Your task to perform on an android device: Clear the cart on amazon. Add "dell xps" to the cart on amazon Image 0: 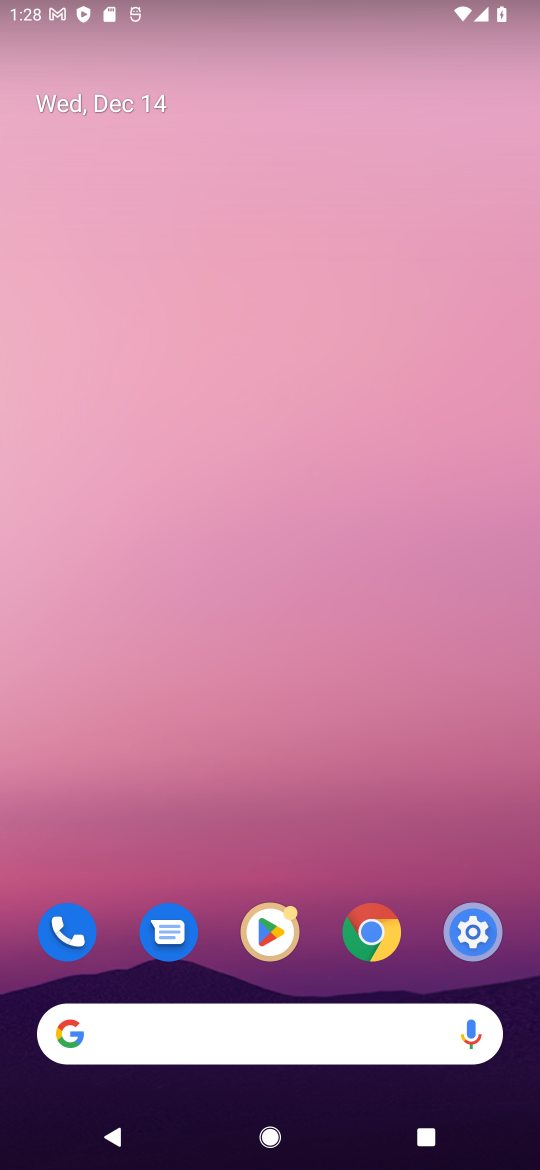
Step 0: click (184, 1020)
Your task to perform on an android device: Clear the cart on amazon. Add "dell xps" to the cart on amazon Image 1: 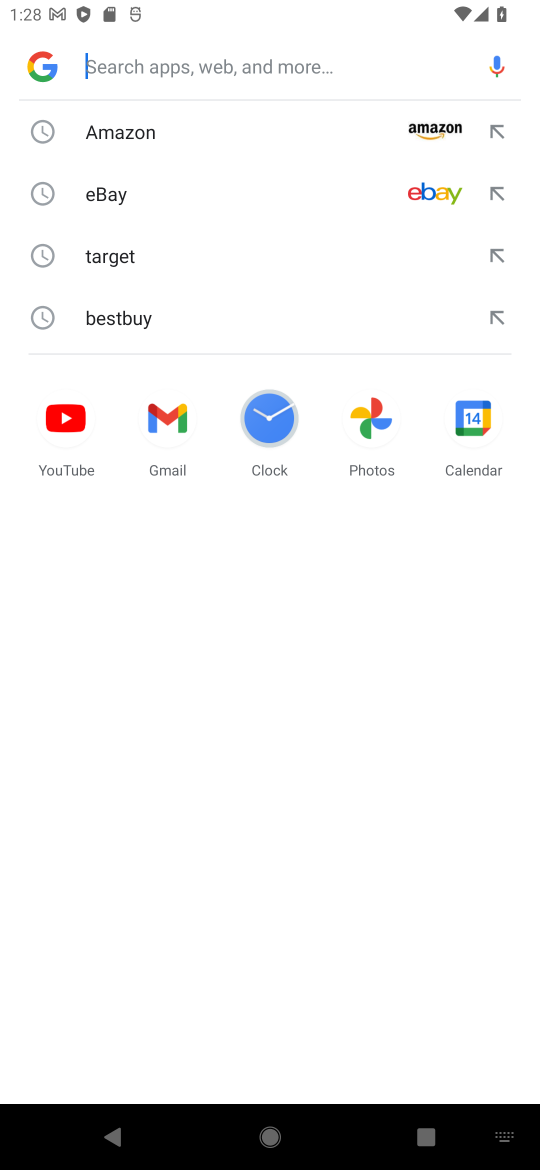
Step 1: click (153, 124)
Your task to perform on an android device: Clear the cart on amazon. Add "dell xps" to the cart on amazon Image 2: 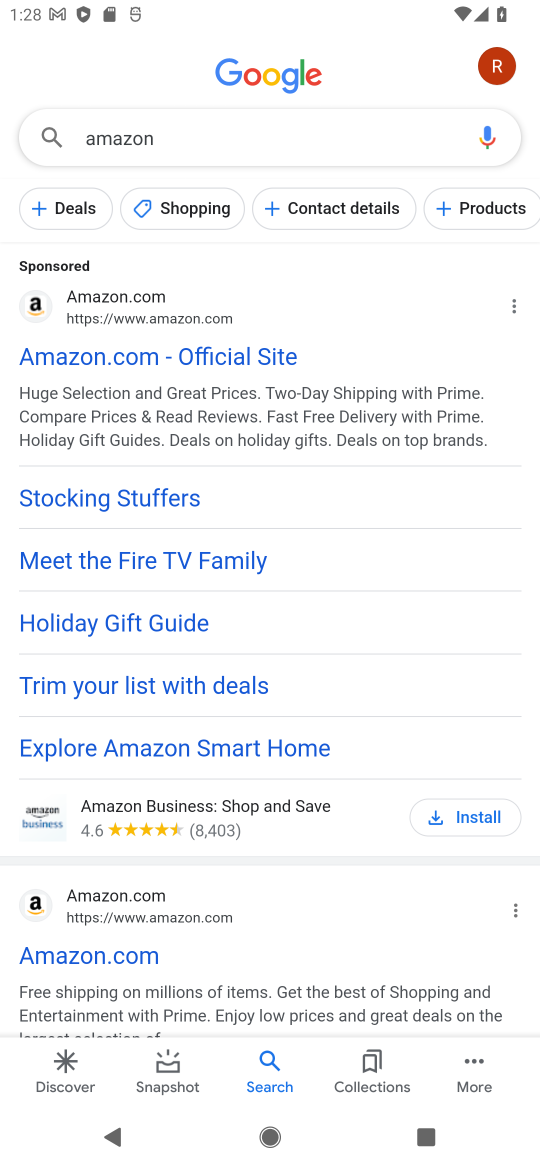
Step 2: click (173, 355)
Your task to perform on an android device: Clear the cart on amazon. Add "dell xps" to the cart on amazon Image 3: 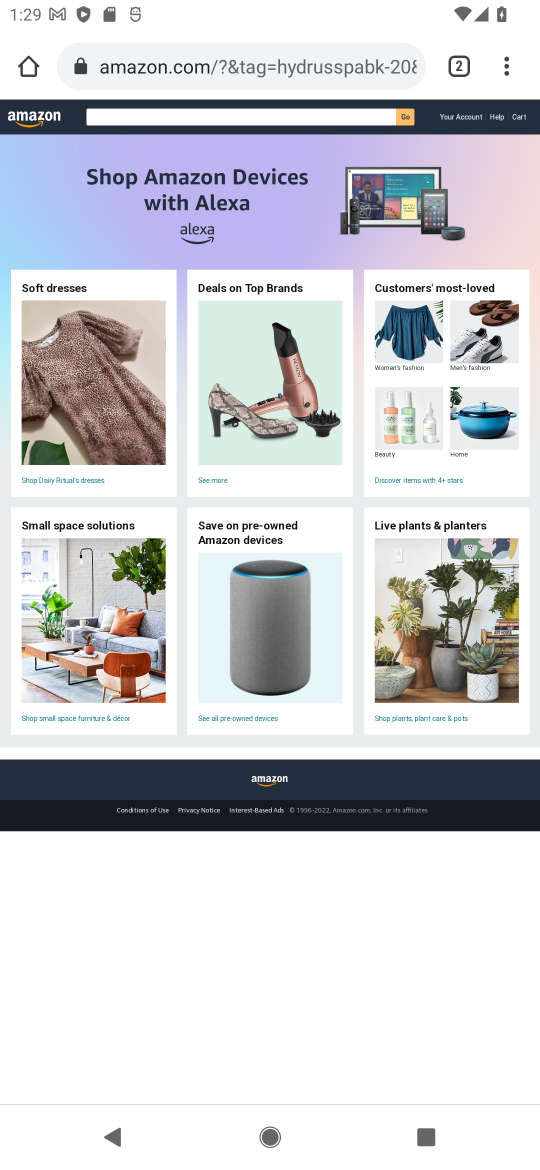
Step 3: click (506, 121)
Your task to perform on an android device: Clear the cart on amazon. Add "dell xps" to the cart on amazon Image 4: 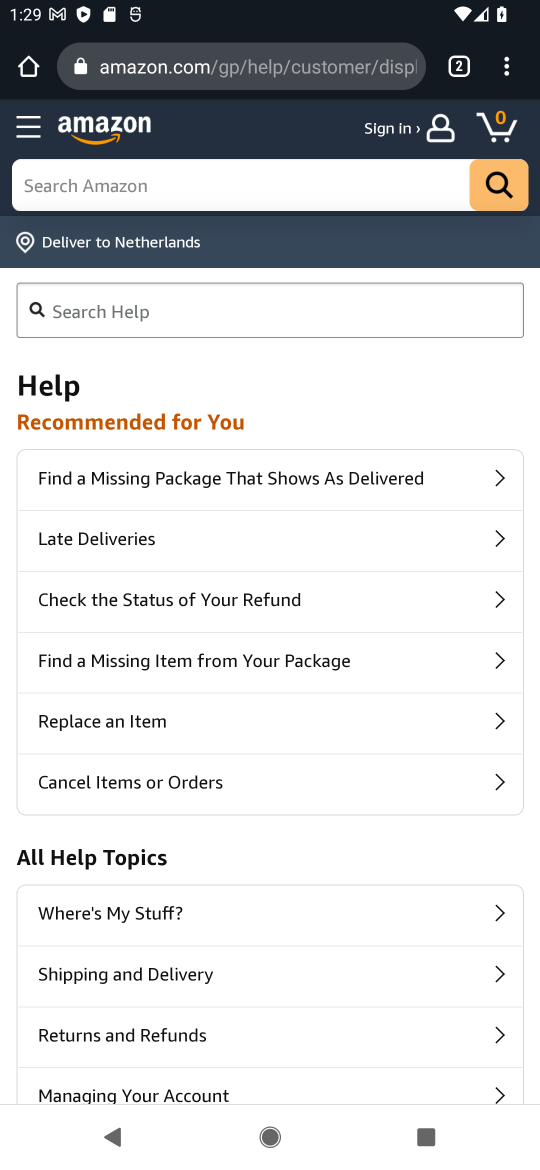
Step 4: click (501, 135)
Your task to perform on an android device: Clear the cart on amazon. Add "dell xps" to the cart on amazon Image 5: 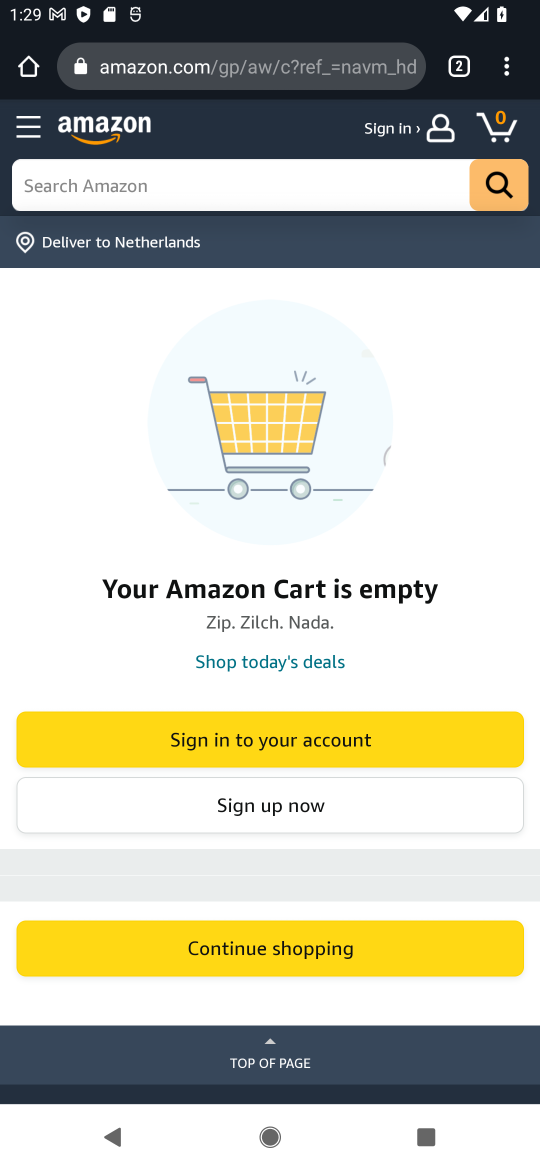
Step 5: click (320, 181)
Your task to perform on an android device: Clear the cart on amazon. Add "dell xps" to the cart on amazon Image 6: 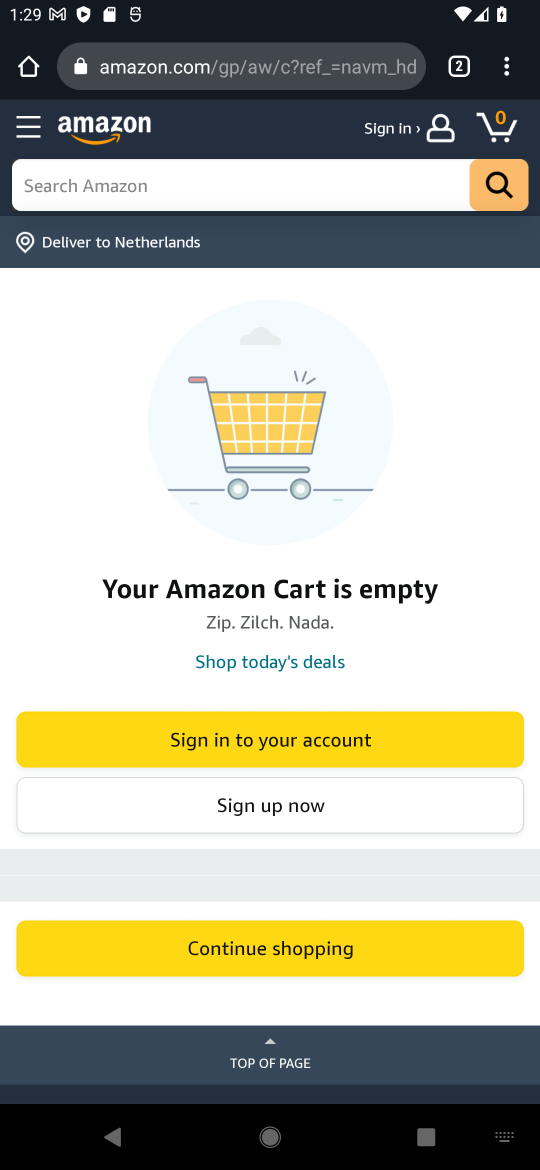
Step 6: type "dell xps"
Your task to perform on an android device: Clear the cart on amazon. Add "dell xps" to the cart on amazon Image 7: 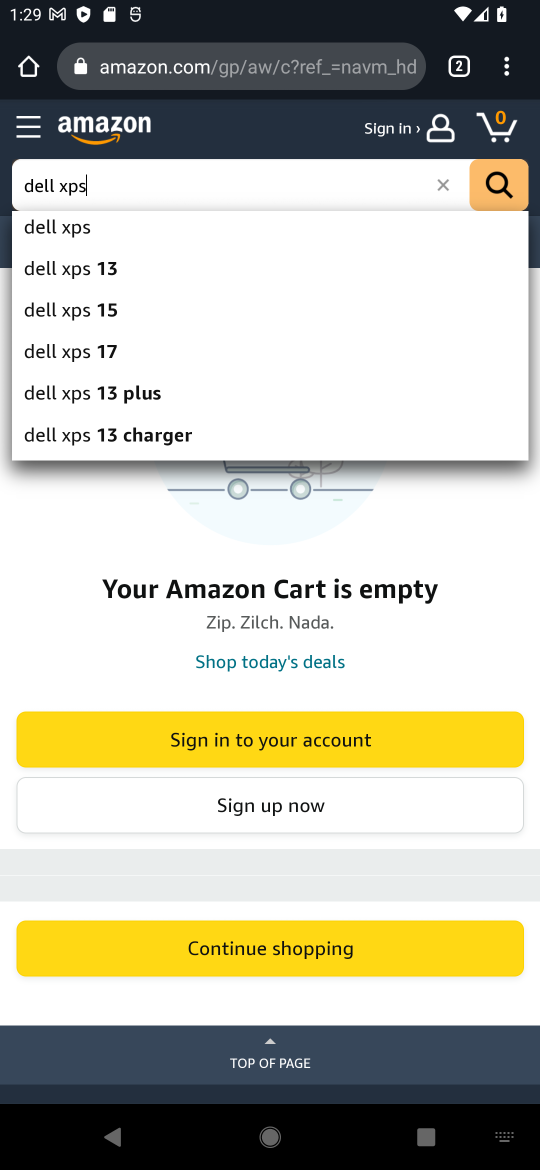
Step 7: click (51, 222)
Your task to perform on an android device: Clear the cart on amazon. Add "dell xps" to the cart on amazon Image 8: 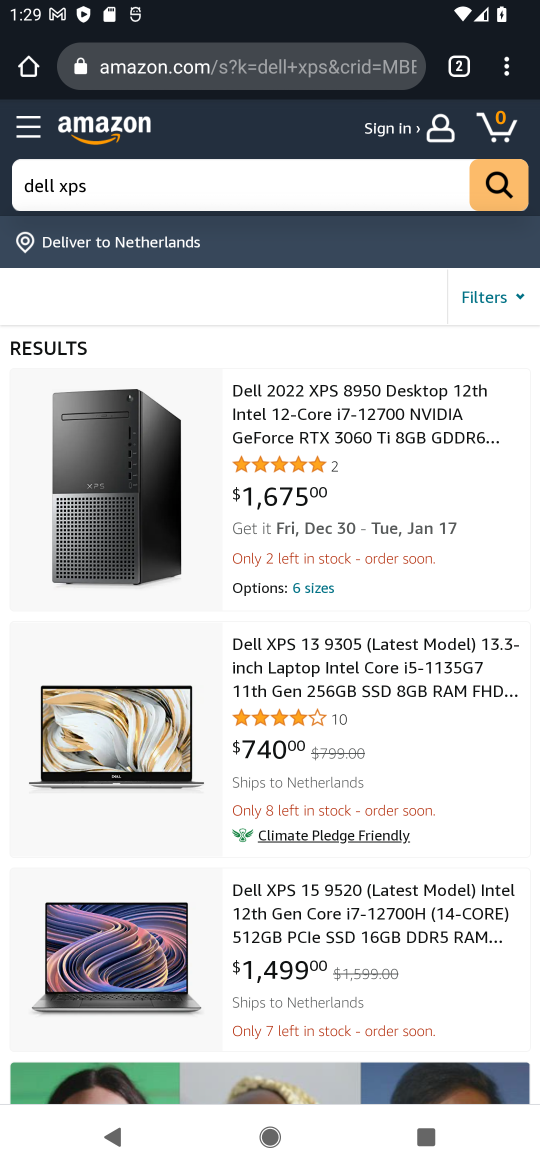
Step 8: click (286, 427)
Your task to perform on an android device: Clear the cart on amazon. Add "dell xps" to the cart on amazon Image 9: 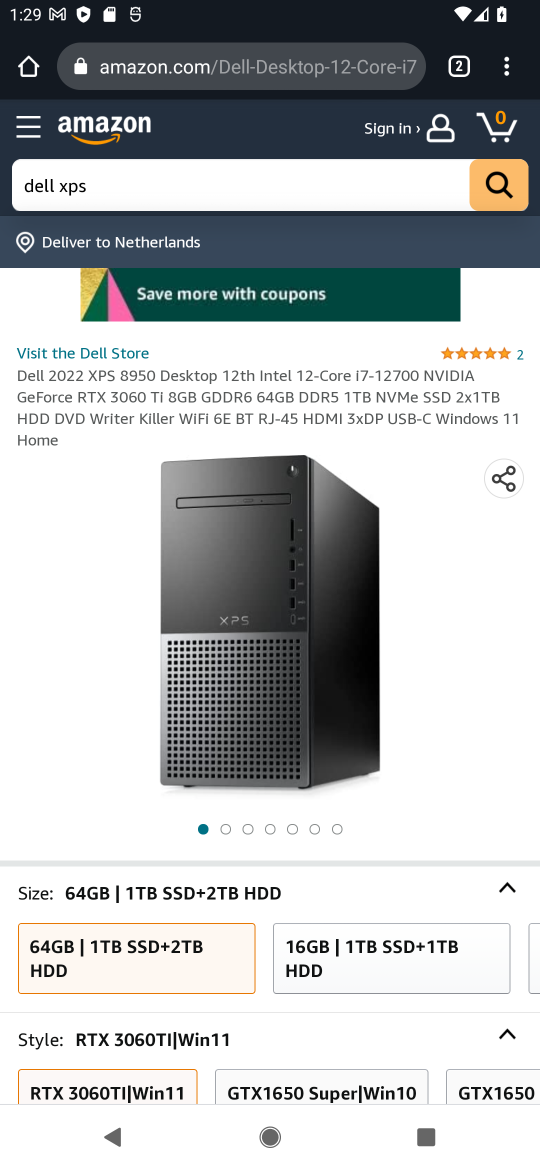
Step 9: click (286, 427)
Your task to perform on an android device: Clear the cart on amazon. Add "dell xps" to the cart on amazon Image 10: 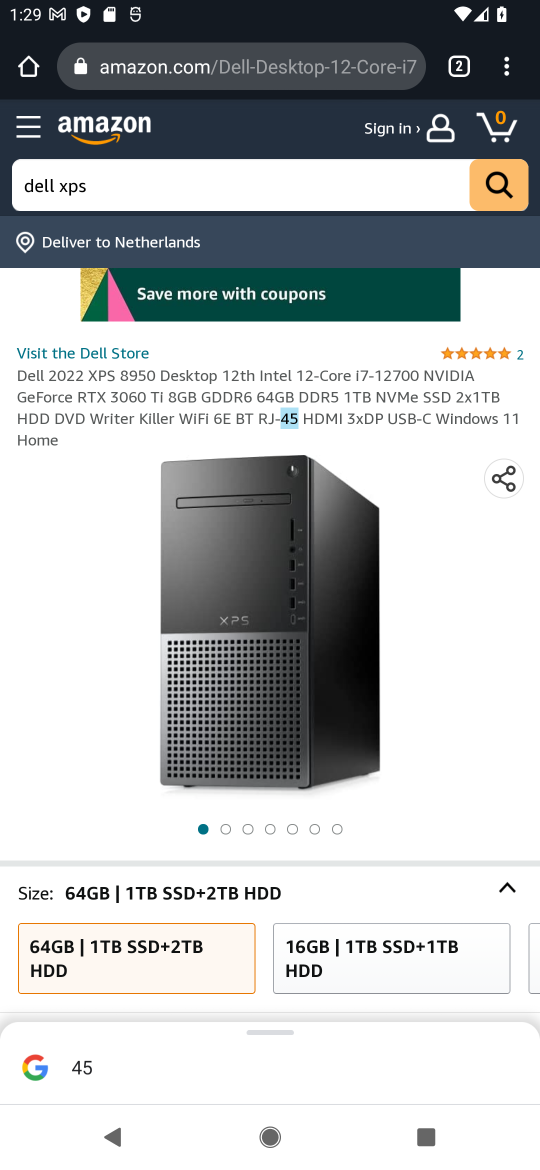
Step 10: click (207, 477)
Your task to perform on an android device: Clear the cart on amazon. Add "dell xps" to the cart on amazon Image 11: 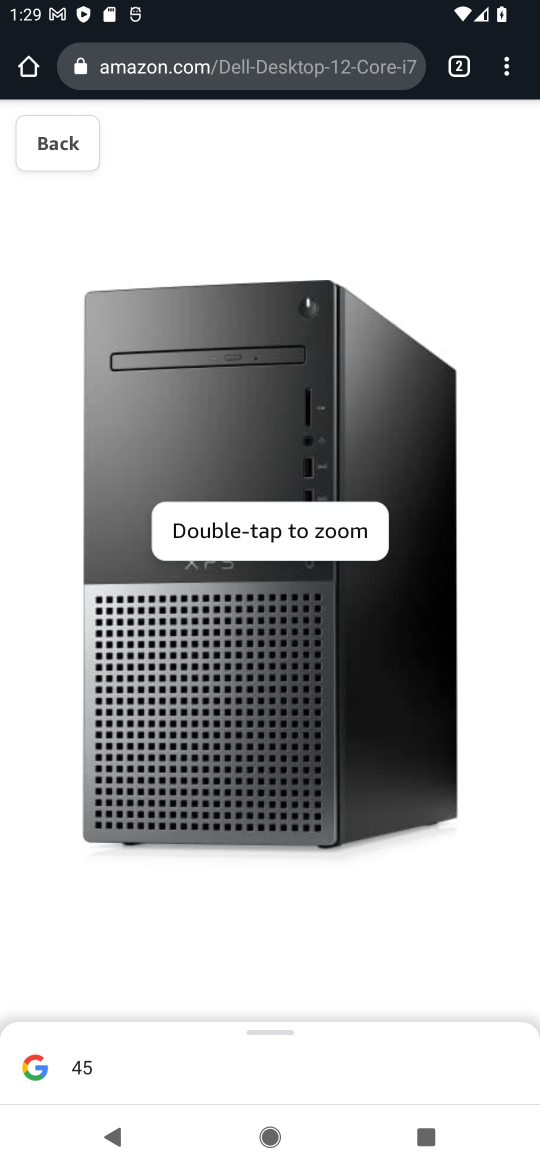
Step 11: drag from (367, 767) to (367, 558)
Your task to perform on an android device: Clear the cart on amazon. Add "dell xps" to the cart on amazon Image 12: 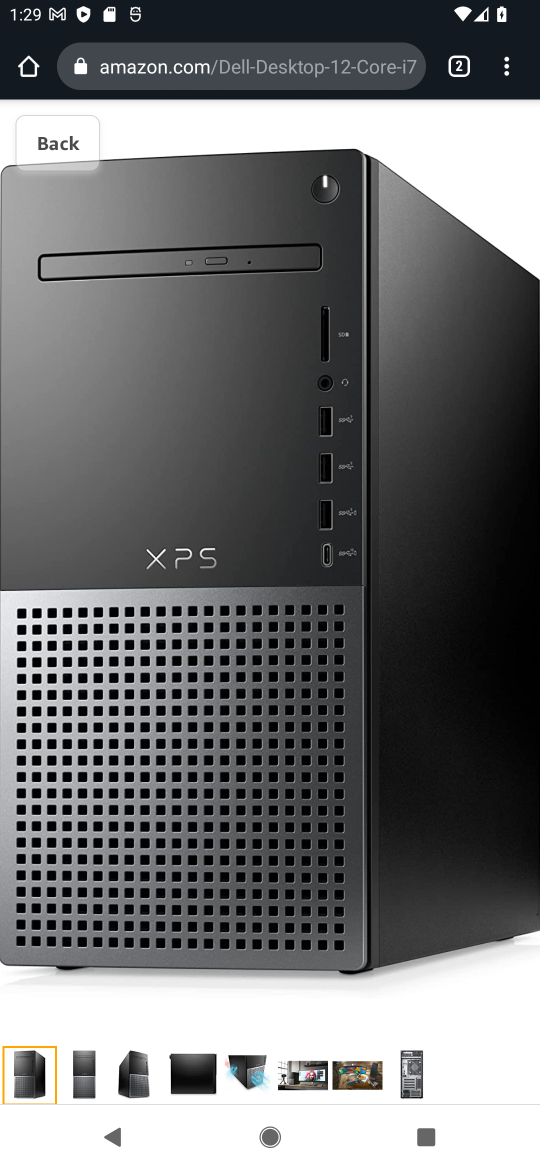
Step 12: click (44, 162)
Your task to perform on an android device: Clear the cart on amazon. Add "dell xps" to the cart on amazon Image 13: 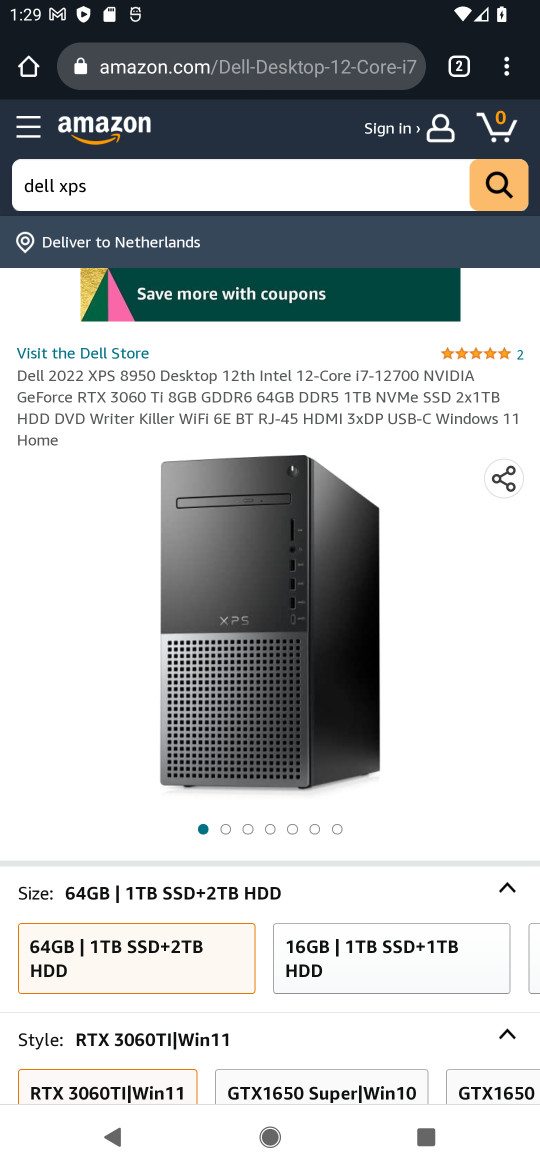
Step 13: click (327, 376)
Your task to perform on an android device: Clear the cart on amazon. Add "dell xps" to the cart on amazon Image 14: 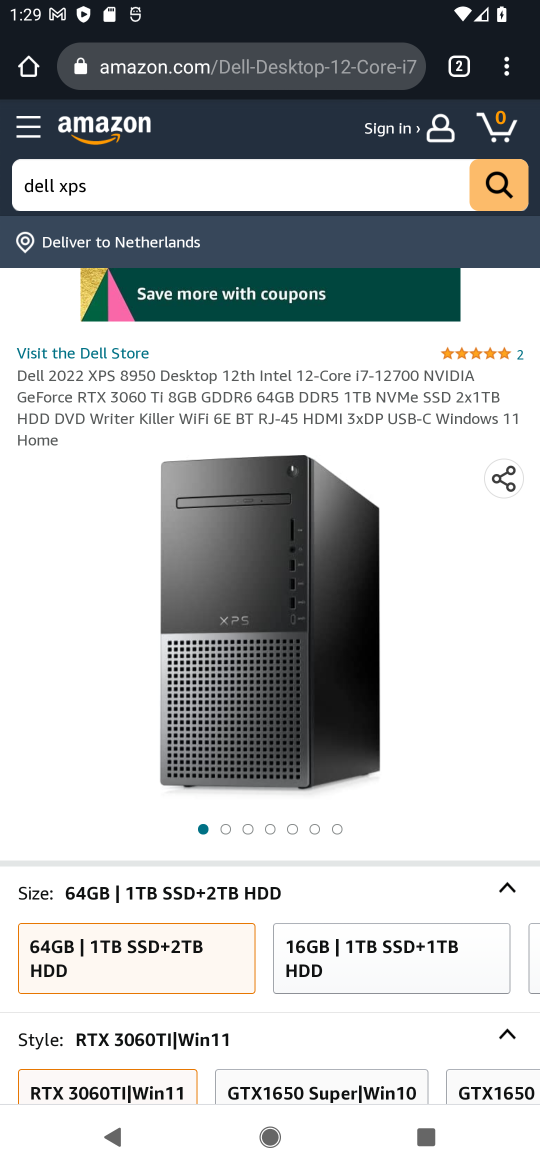
Step 14: drag from (271, 857) to (259, 479)
Your task to perform on an android device: Clear the cart on amazon. Add "dell xps" to the cart on amazon Image 15: 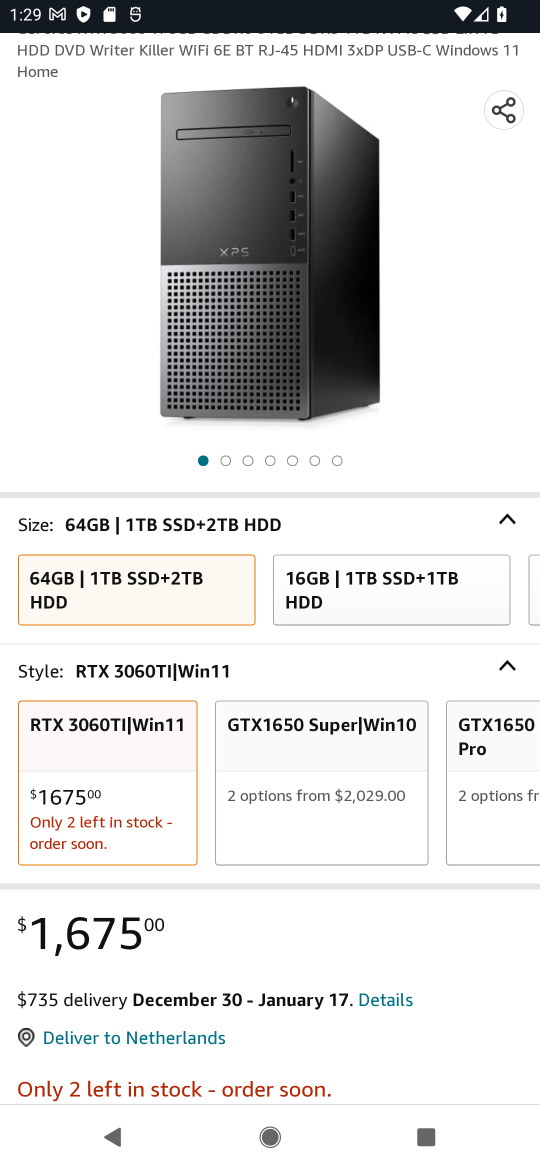
Step 15: drag from (189, 902) to (202, 576)
Your task to perform on an android device: Clear the cart on amazon. Add "dell xps" to the cart on amazon Image 16: 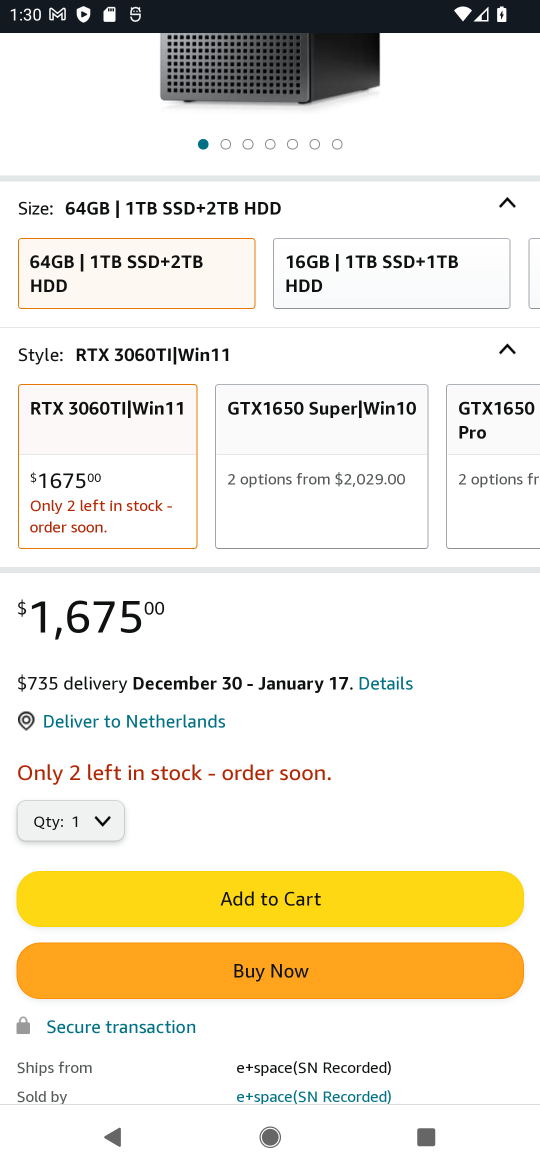
Step 16: click (231, 896)
Your task to perform on an android device: Clear the cart on amazon. Add "dell xps" to the cart on amazon Image 17: 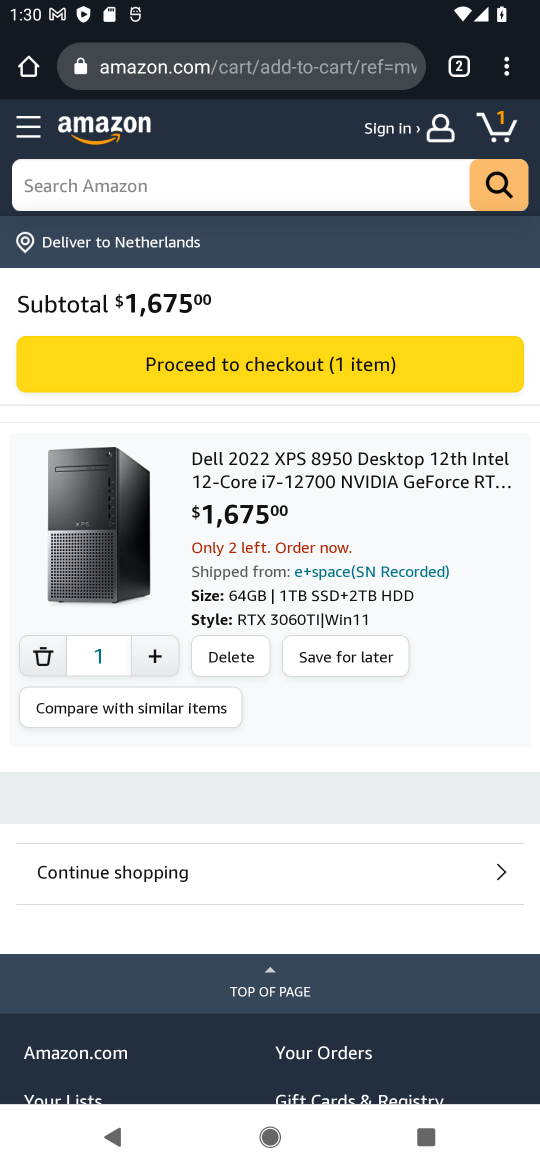
Step 17: task complete